Your task to perform on an android device: check android version Image 0: 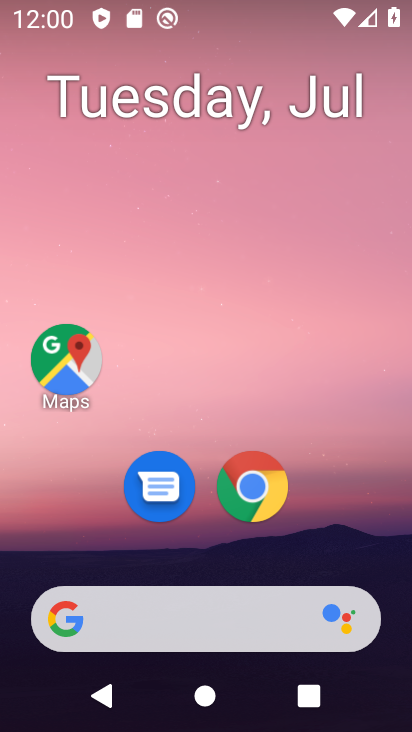
Step 0: drag from (359, 538) to (349, 147)
Your task to perform on an android device: check android version Image 1: 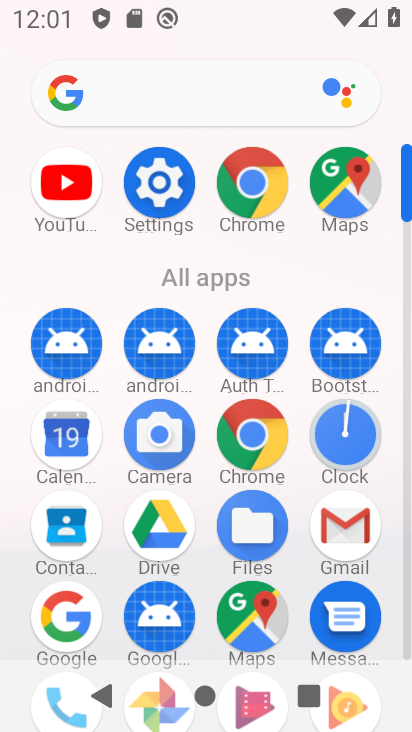
Step 1: click (164, 195)
Your task to perform on an android device: check android version Image 2: 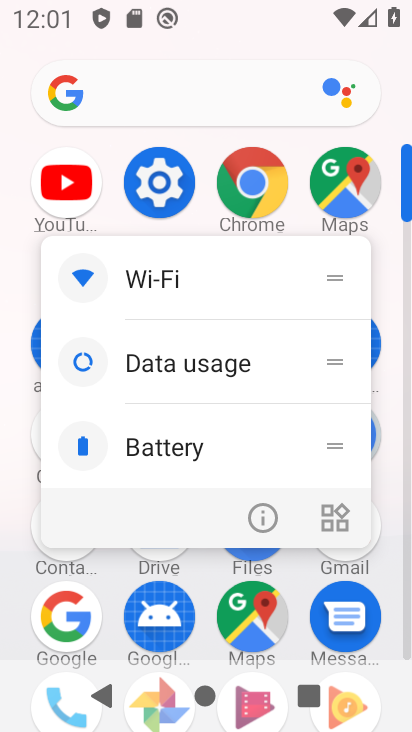
Step 2: click (170, 202)
Your task to perform on an android device: check android version Image 3: 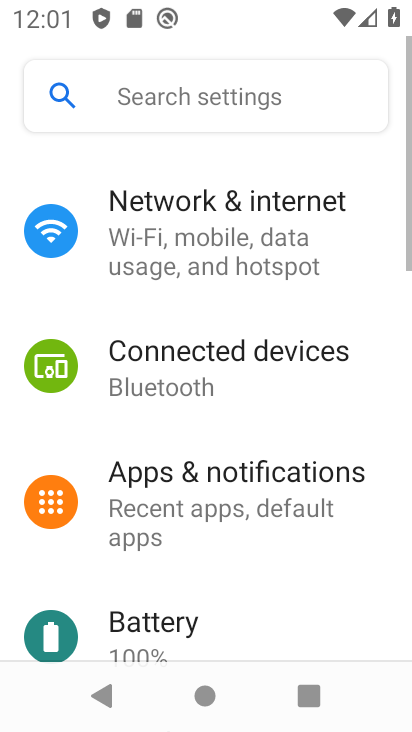
Step 3: drag from (362, 518) to (369, 342)
Your task to perform on an android device: check android version Image 4: 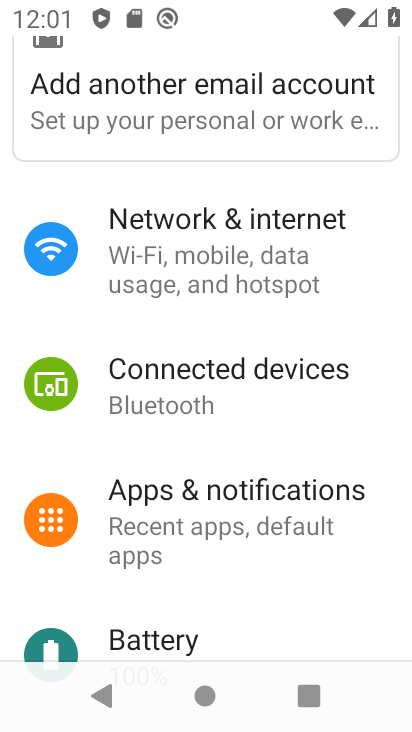
Step 4: drag from (378, 533) to (380, 363)
Your task to perform on an android device: check android version Image 5: 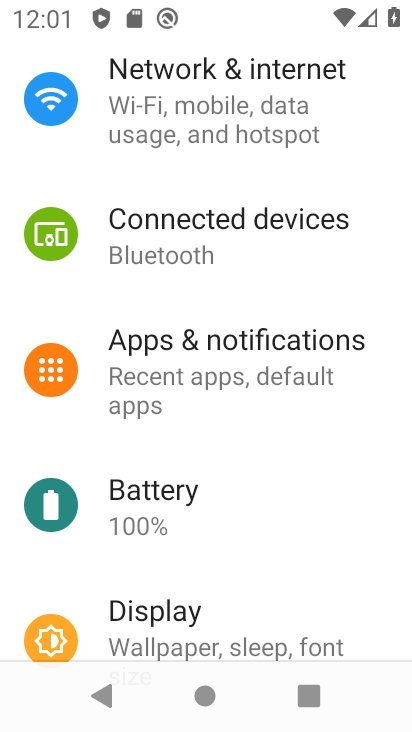
Step 5: drag from (376, 531) to (386, 417)
Your task to perform on an android device: check android version Image 6: 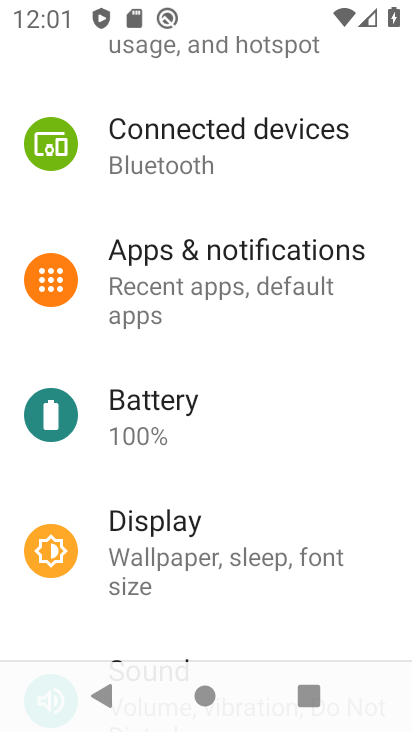
Step 6: drag from (357, 535) to (350, 400)
Your task to perform on an android device: check android version Image 7: 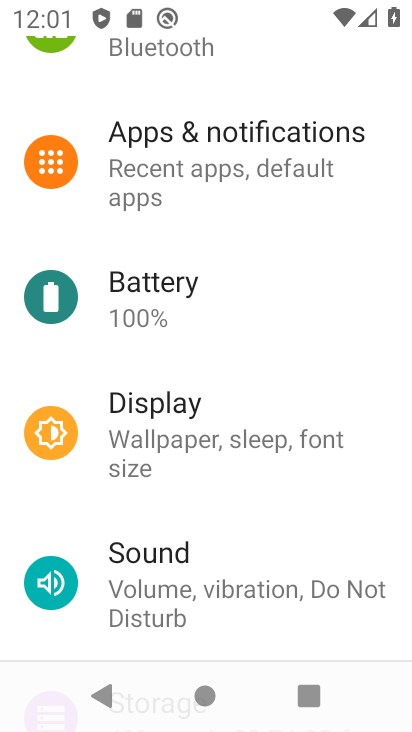
Step 7: drag from (349, 525) to (341, 363)
Your task to perform on an android device: check android version Image 8: 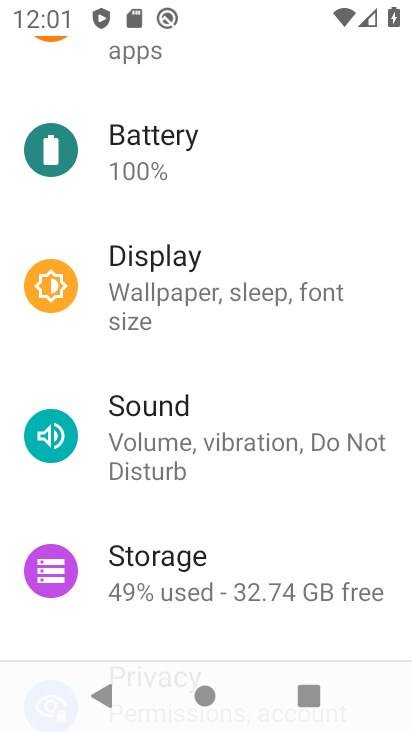
Step 8: drag from (364, 503) to (374, 314)
Your task to perform on an android device: check android version Image 9: 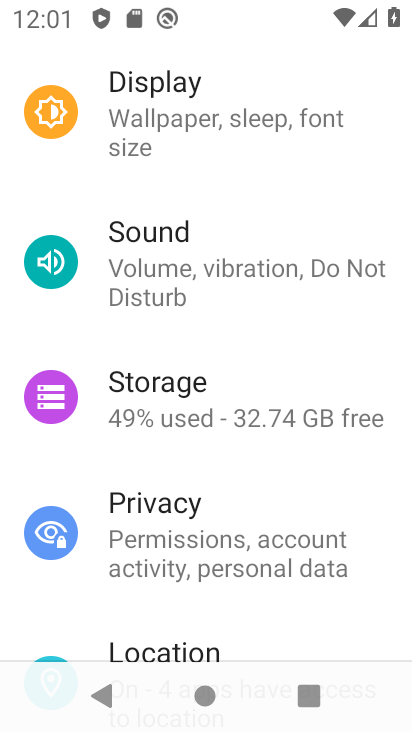
Step 9: drag from (373, 614) to (371, 419)
Your task to perform on an android device: check android version Image 10: 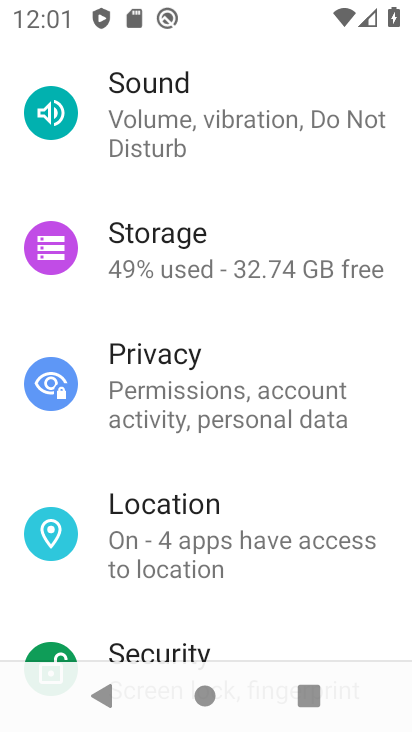
Step 10: drag from (358, 594) to (354, 438)
Your task to perform on an android device: check android version Image 11: 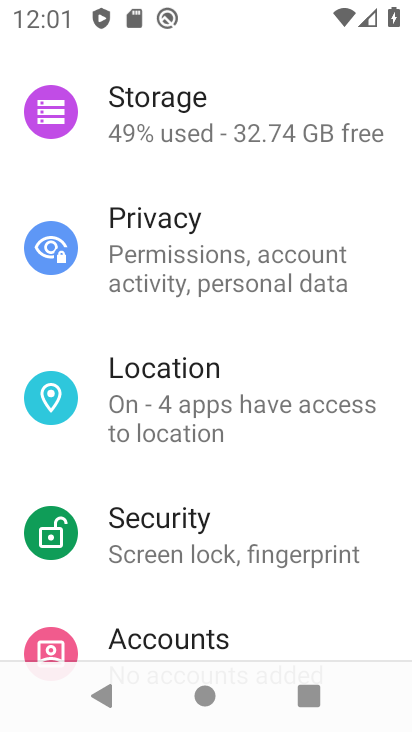
Step 11: drag from (346, 587) to (351, 417)
Your task to perform on an android device: check android version Image 12: 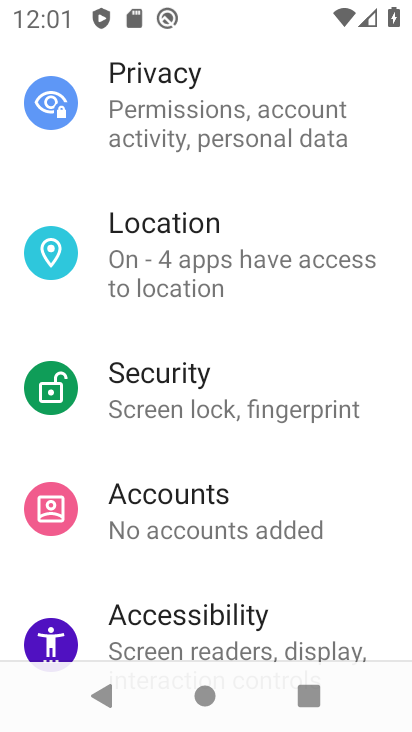
Step 12: drag from (356, 554) to (355, 427)
Your task to perform on an android device: check android version Image 13: 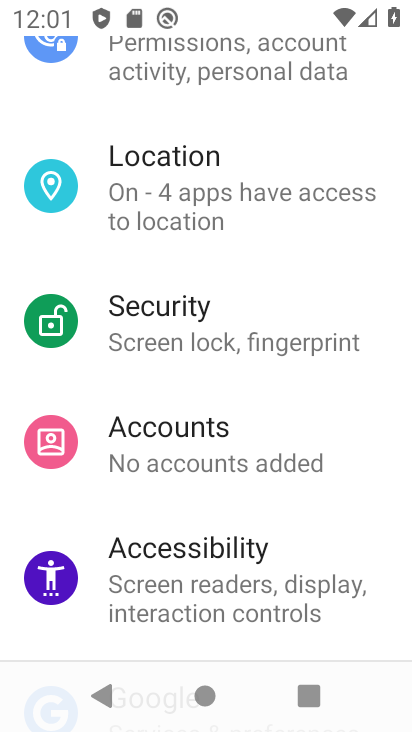
Step 13: drag from (358, 533) to (363, 355)
Your task to perform on an android device: check android version Image 14: 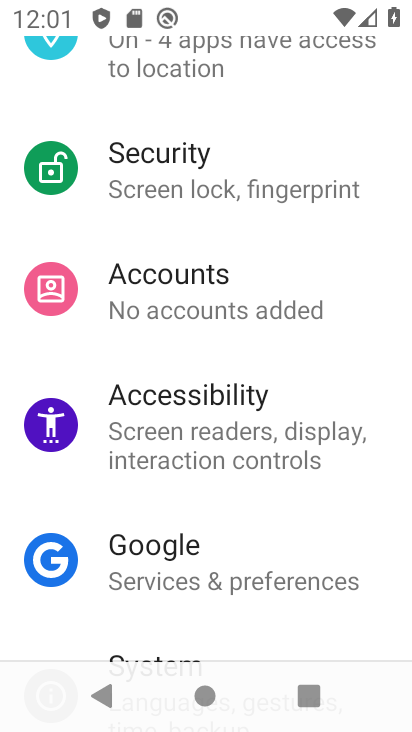
Step 14: drag from (340, 554) to (353, 441)
Your task to perform on an android device: check android version Image 15: 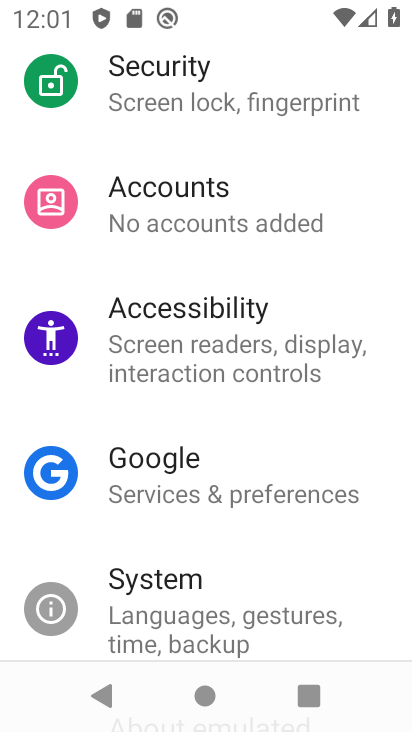
Step 15: drag from (348, 581) to (357, 432)
Your task to perform on an android device: check android version Image 16: 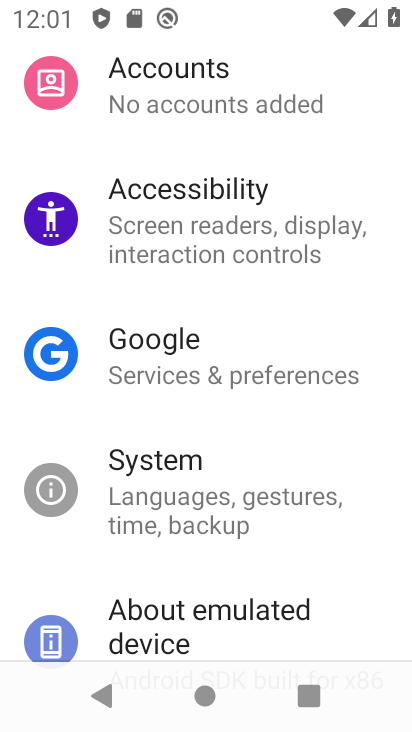
Step 16: click (246, 510)
Your task to perform on an android device: check android version Image 17: 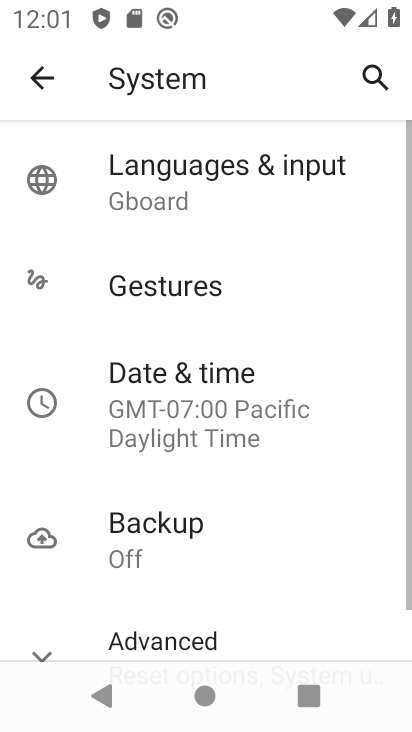
Step 17: drag from (312, 544) to (331, 333)
Your task to perform on an android device: check android version Image 18: 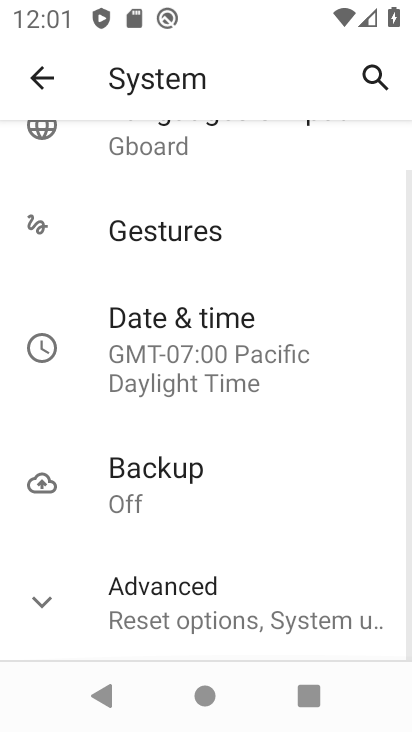
Step 18: click (283, 626)
Your task to perform on an android device: check android version Image 19: 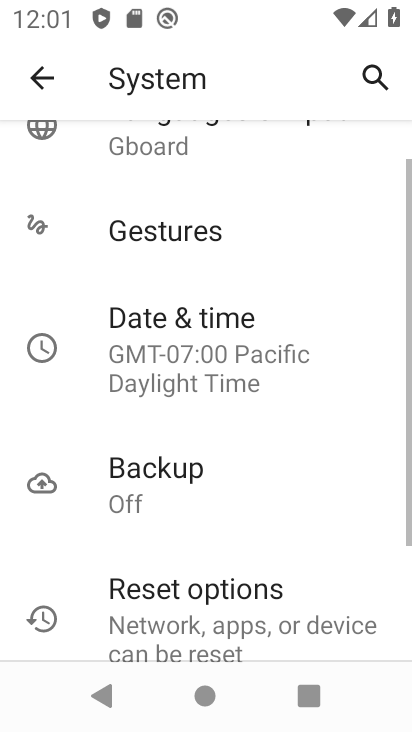
Step 19: task complete